Your task to perform on an android device: Open internet settings Image 0: 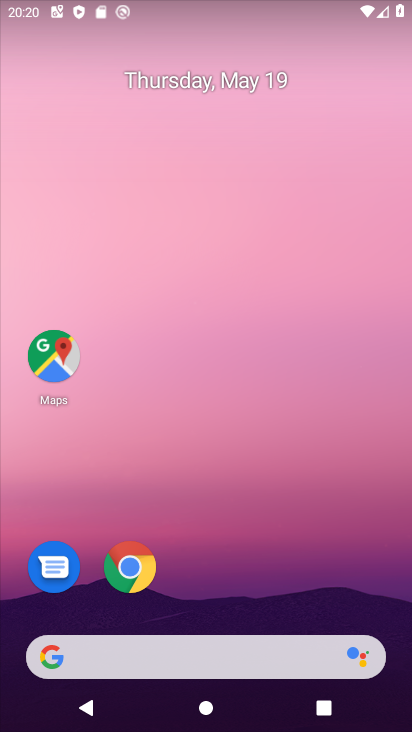
Step 0: drag from (212, 573) to (241, 76)
Your task to perform on an android device: Open internet settings Image 1: 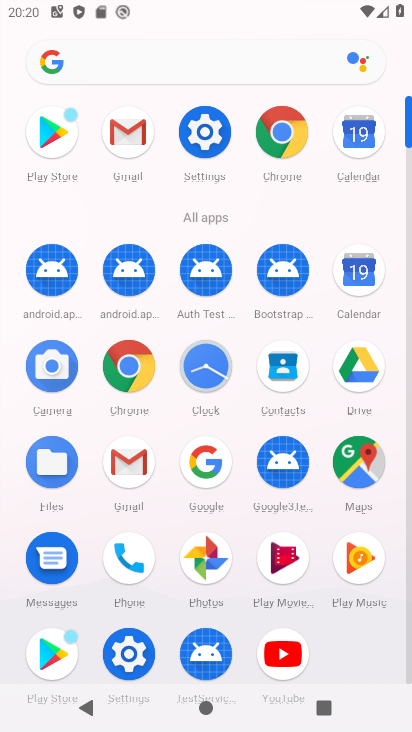
Step 1: click (125, 642)
Your task to perform on an android device: Open internet settings Image 2: 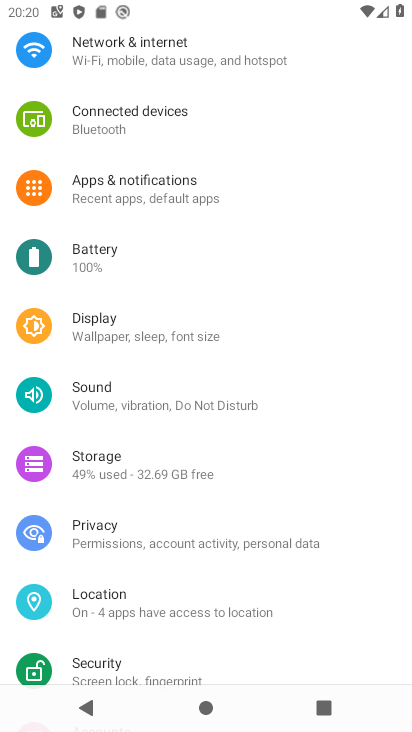
Step 2: click (190, 64)
Your task to perform on an android device: Open internet settings Image 3: 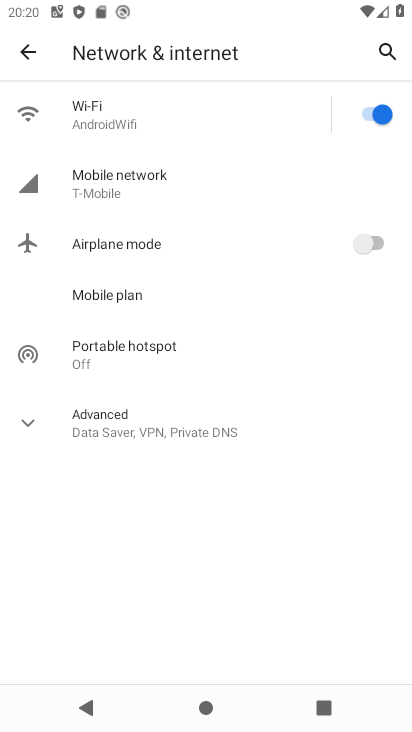
Step 3: task complete